Your task to perform on an android device: What's the weather? Image 0: 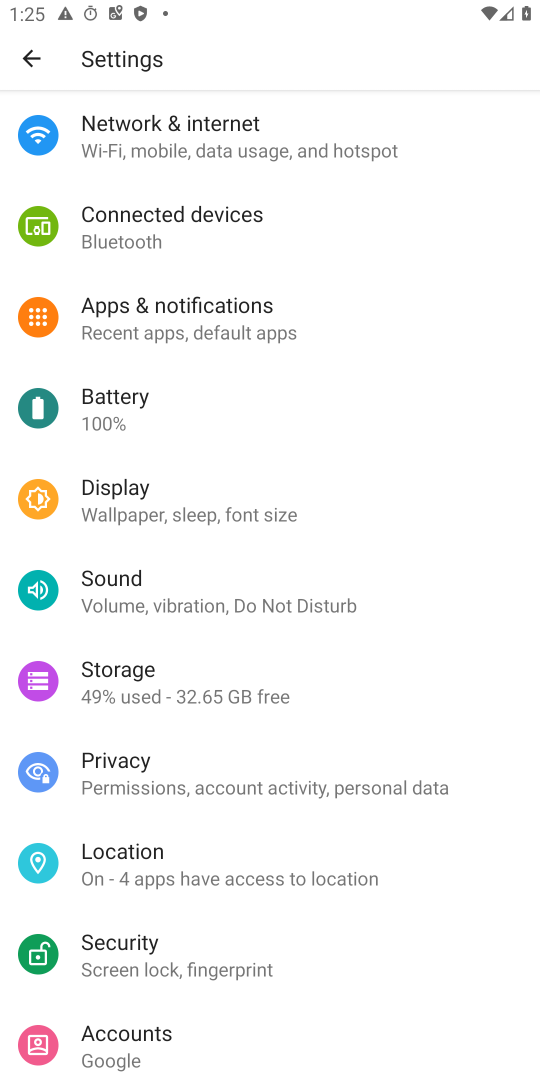
Step 0: press home button
Your task to perform on an android device: What's the weather? Image 1: 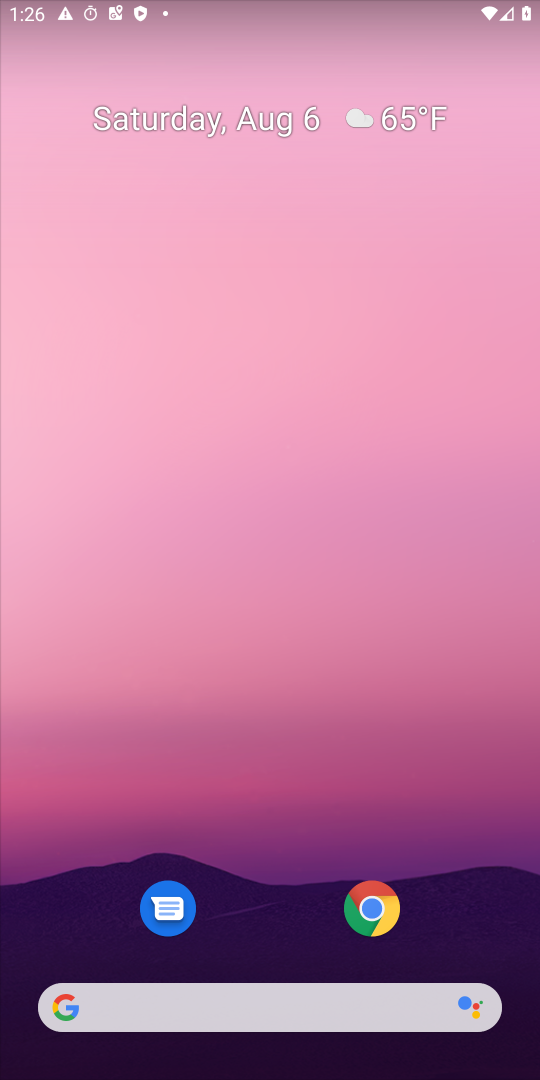
Step 1: click (197, 1008)
Your task to perform on an android device: What's the weather? Image 2: 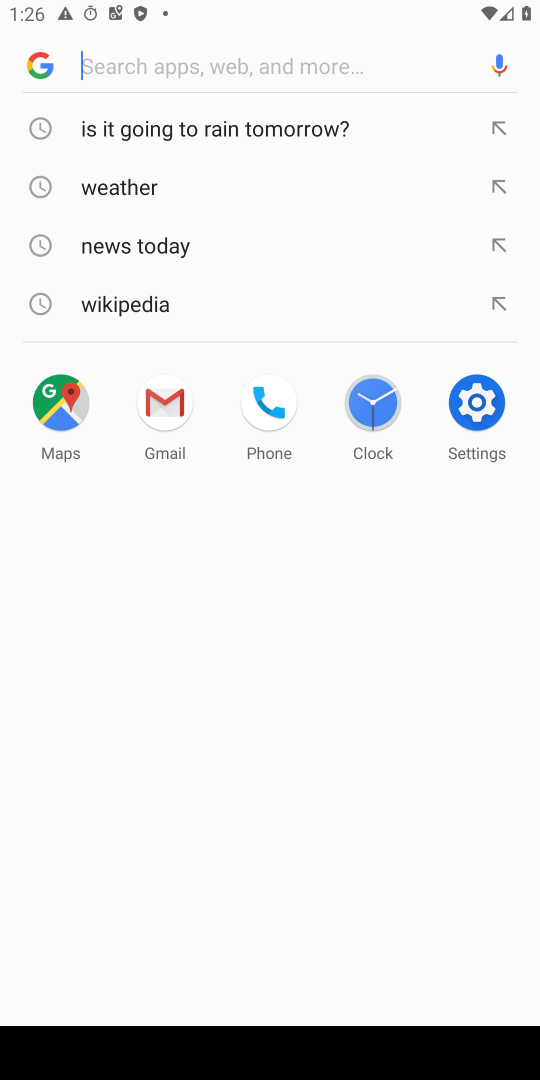
Step 2: type "what's the weather"
Your task to perform on an android device: What's the weather? Image 3: 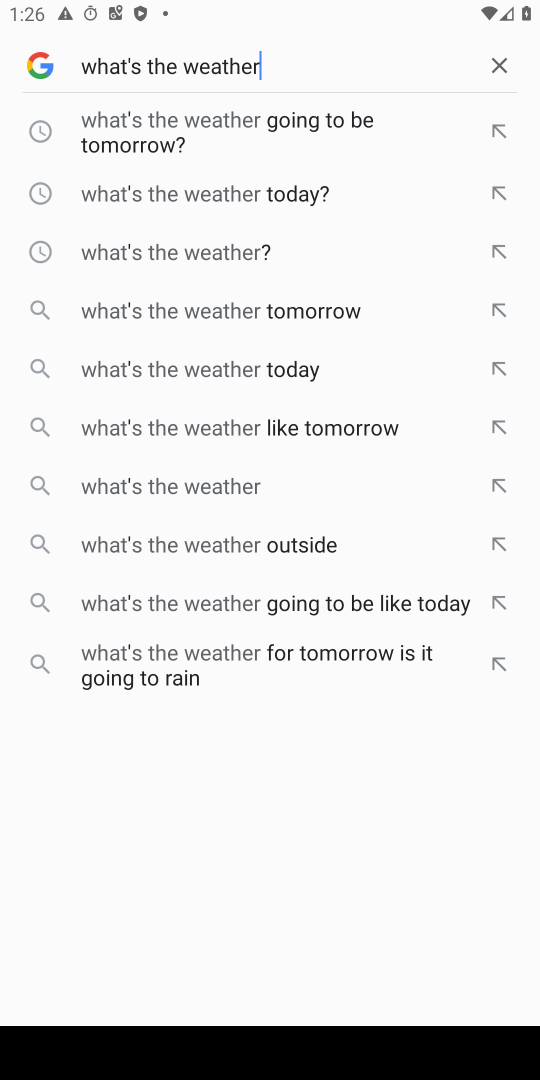
Step 3: click (192, 250)
Your task to perform on an android device: What's the weather? Image 4: 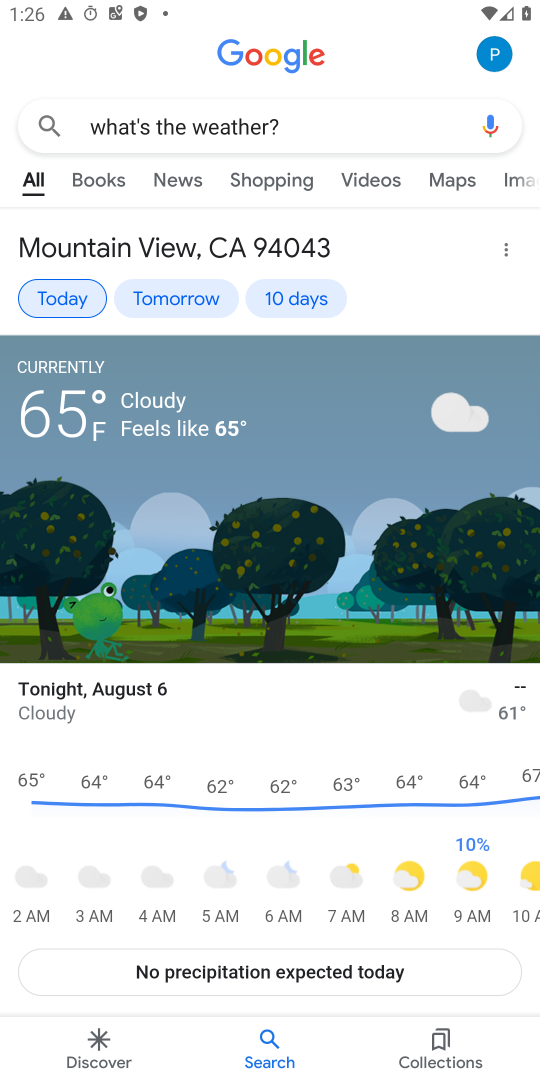
Step 4: task complete